Your task to perform on an android device: turn off data saver in the chrome app Image 0: 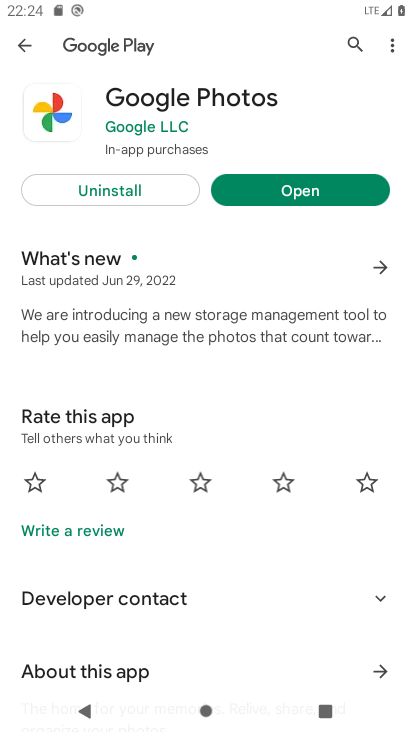
Step 0: press home button
Your task to perform on an android device: turn off data saver in the chrome app Image 1: 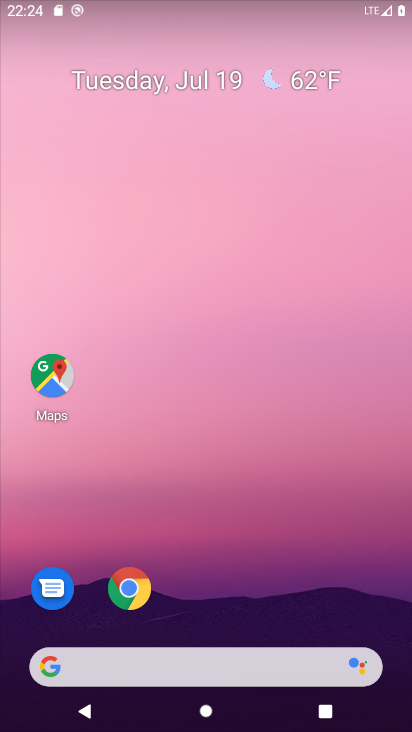
Step 1: click (131, 581)
Your task to perform on an android device: turn off data saver in the chrome app Image 2: 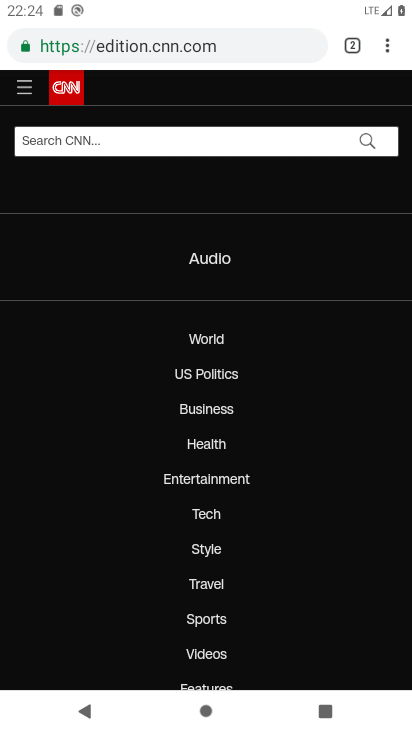
Step 2: click (385, 38)
Your task to perform on an android device: turn off data saver in the chrome app Image 3: 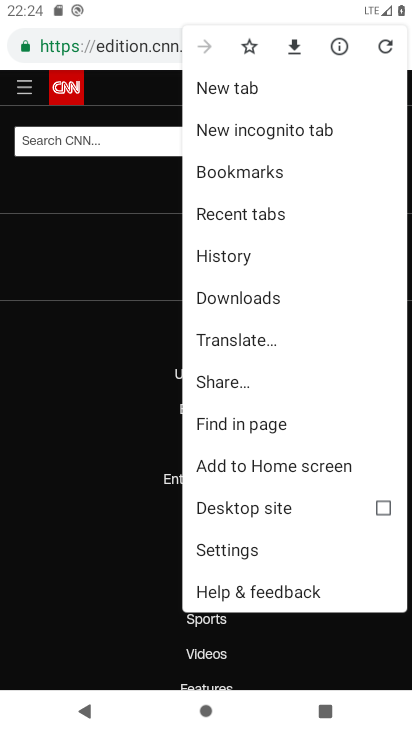
Step 3: click (225, 554)
Your task to perform on an android device: turn off data saver in the chrome app Image 4: 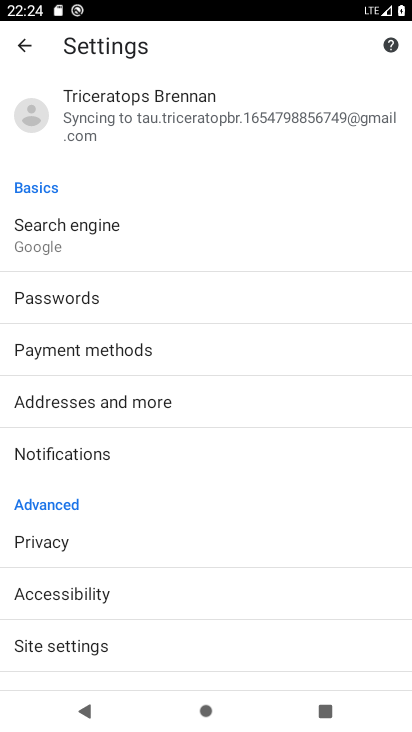
Step 4: drag from (77, 597) to (88, 240)
Your task to perform on an android device: turn off data saver in the chrome app Image 5: 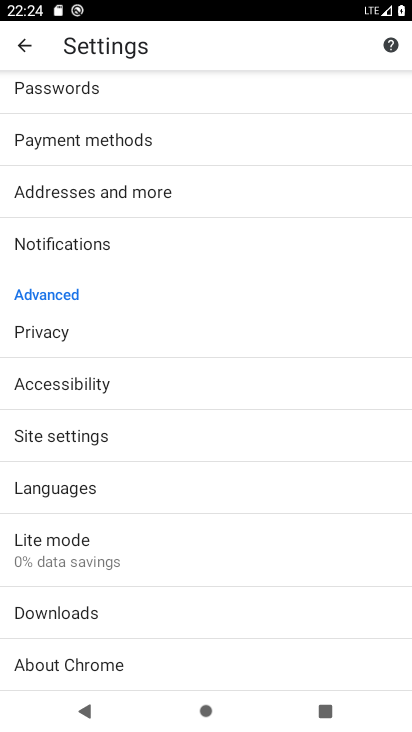
Step 5: click (83, 560)
Your task to perform on an android device: turn off data saver in the chrome app Image 6: 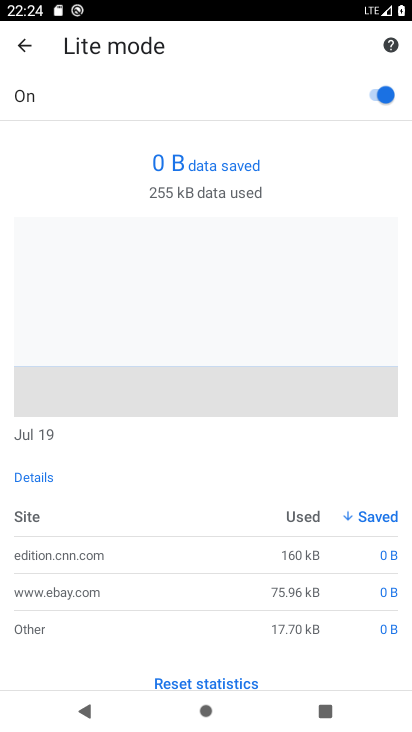
Step 6: click (376, 91)
Your task to perform on an android device: turn off data saver in the chrome app Image 7: 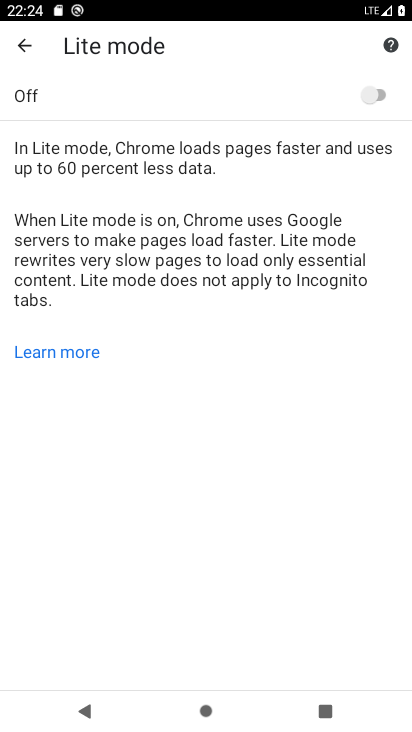
Step 7: task complete